Your task to perform on an android device: turn on data saver in the chrome app Image 0: 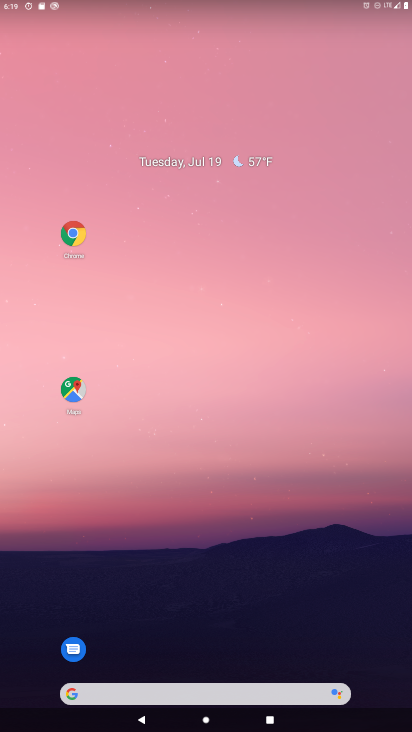
Step 0: click (78, 230)
Your task to perform on an android device: turn on data saver in the chrome app Image 1: 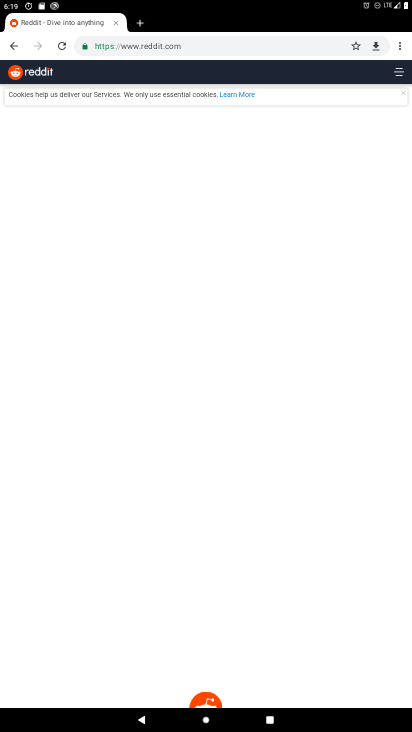
Step 1: click (401, 44)
Your task to perform on an android device: turn on data saver in the chrome app Image 2: 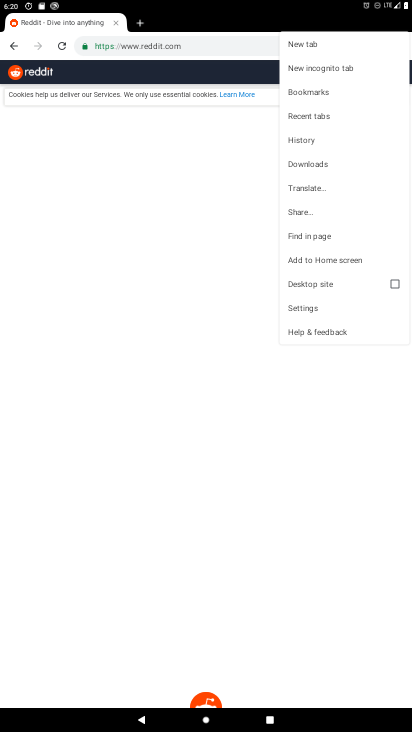
Step 2: click (305, 305)
Your task to perform on an android device: turn on data saver in the chrome app Image 3: 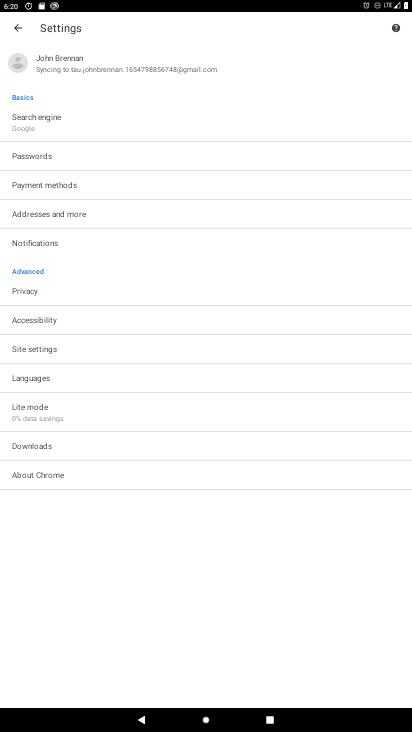
Step 3: click (39, 409)
Your task to perform on an android device: turn on data saver in the chrome app Image 4: 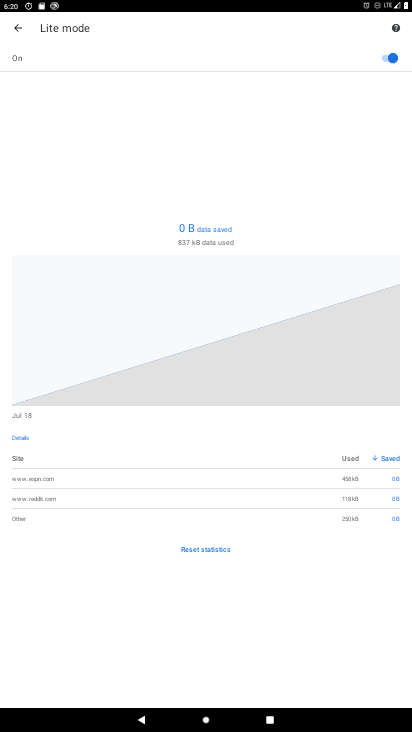
Step 4: task complete